Your task to perform on an android device: open the mobile data screen to see how much data has been used Image 0: 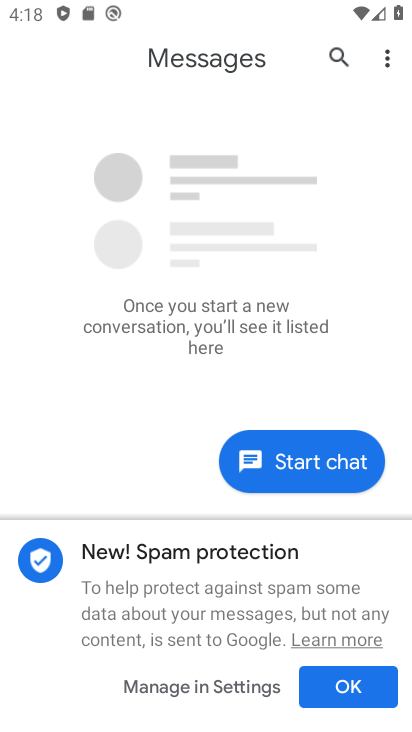
Step 0: press back button
Your task to perform on an android device: open the mobile data screen to see how much data has been used Image 1: 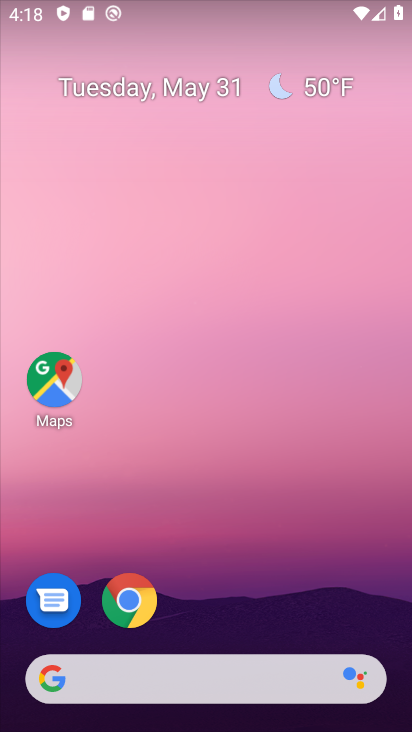
Step 1: drag from (253, 560) to (185, 93)
Your task to perform on an android device: open the mobile data screen to see how much data has been used Image 2: 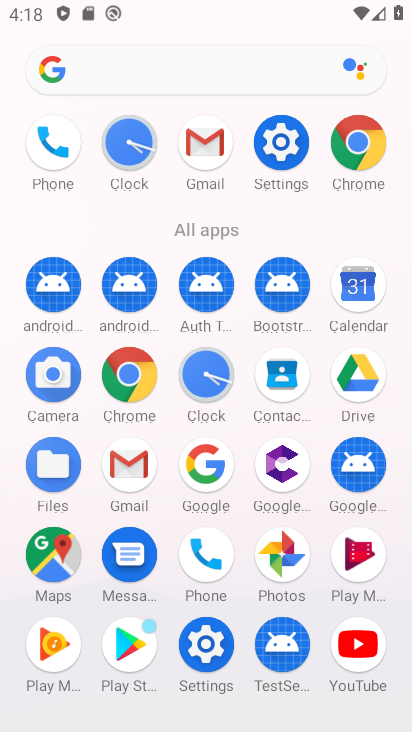
Step 2: click (281, 141)
Your task to perform on an android device: open the mobile data screen to see how much data has been used Image 3: 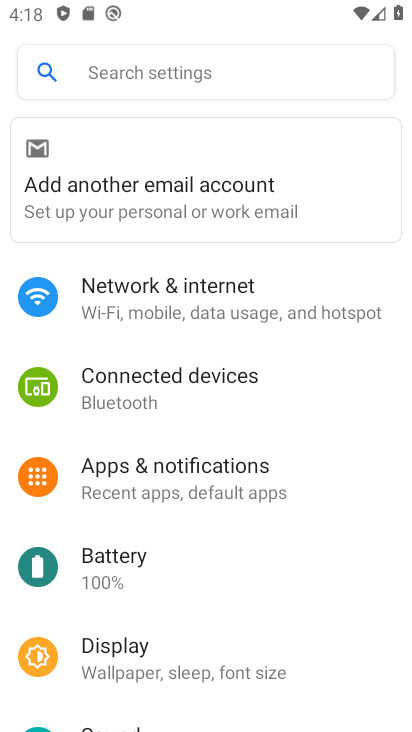
Step 3: click (181, 293)
Your task to perform on an android device: open the mobile data screen to see how much data has been used Image 4: 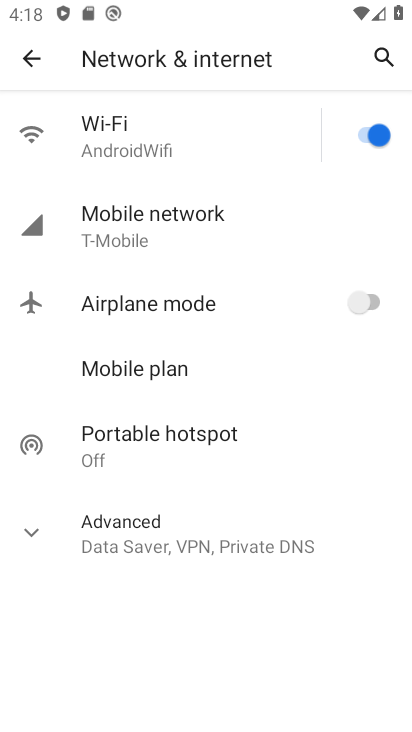
Step 4: click (153, 221)
Your task to perform on an android device: open the mobile data screen to see how much data has been used Image 5: 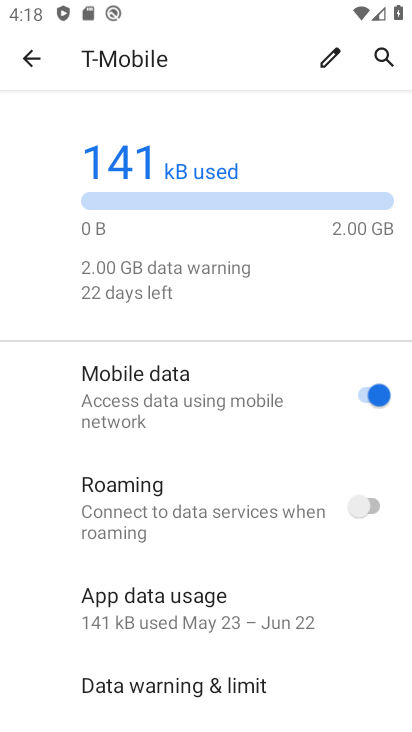
Step 5: task complete